Your task to perform on an android device: Open my contact list Image 0: 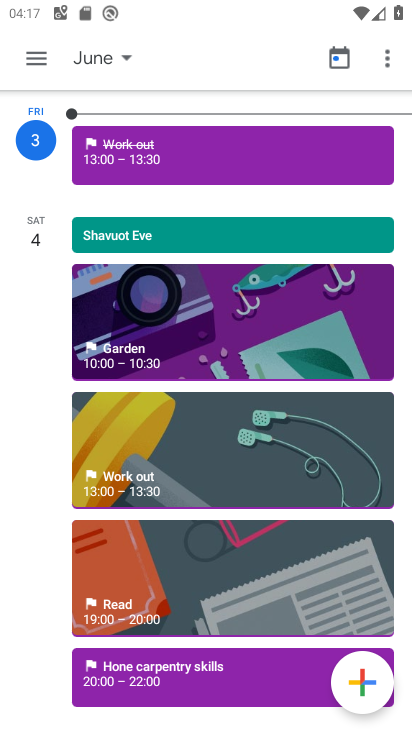
Step 0: press home button
Your task to perform on an android device: Open my contact list Image 1: 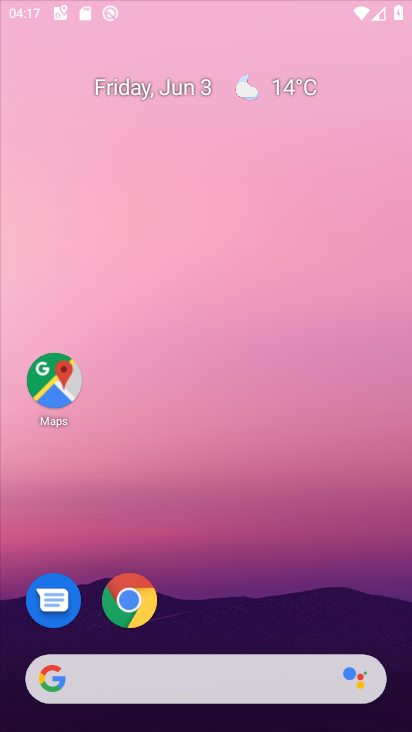
Step 1: press home button
Your task to perform on an android device: Open my contact list Image 2: 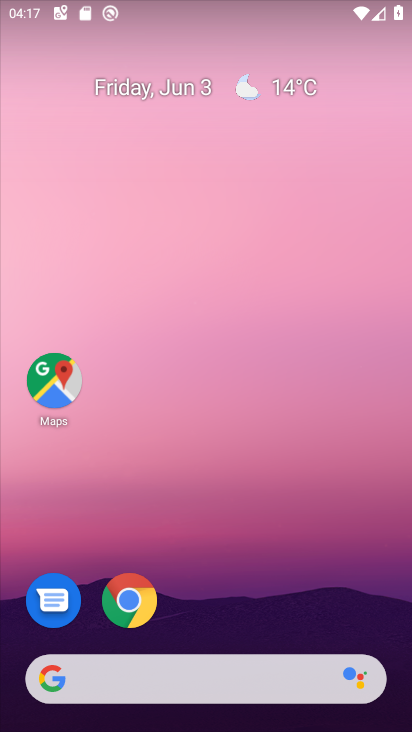
Step 2: drag from (286, 361) to (305, 89)
Your task to perform on an android device: Open my contact list Image 3: 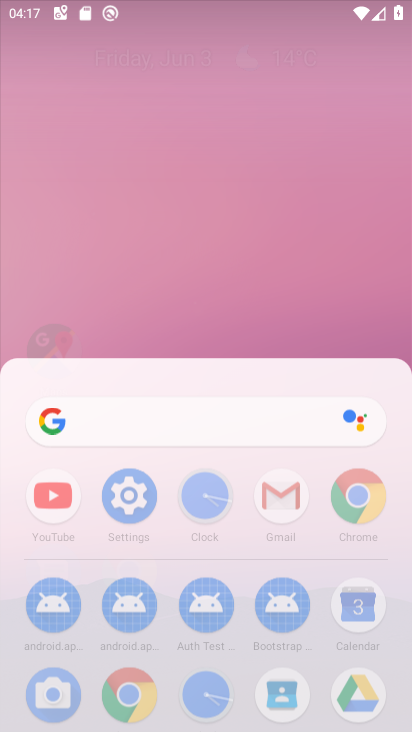
Step 3: press home button
Your task to perform on an android device: Open my contact list Image 4: 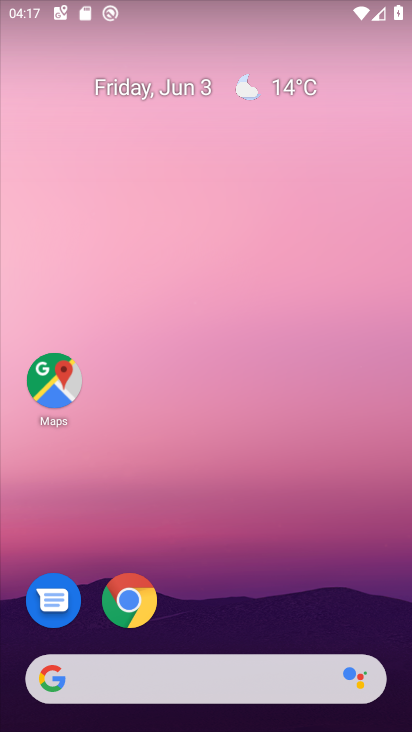
Step 4: drag from (254, 527) to (235, 79)
Your task to perform on an android device: Open my contact list Image 5: 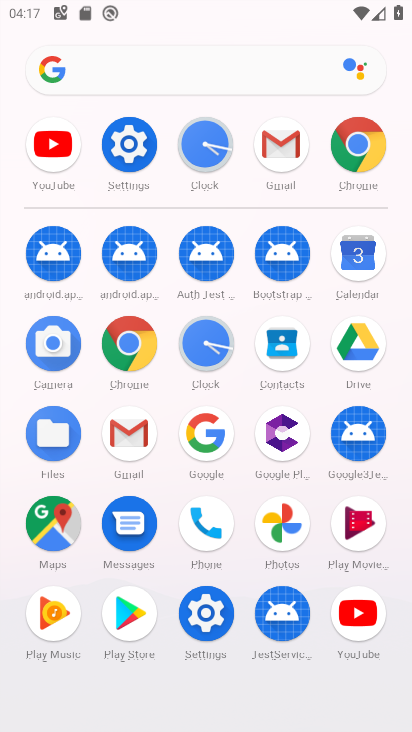
Step 5: click (279, 354)
Your task to perform on an android device: Open my contact list Image 6: 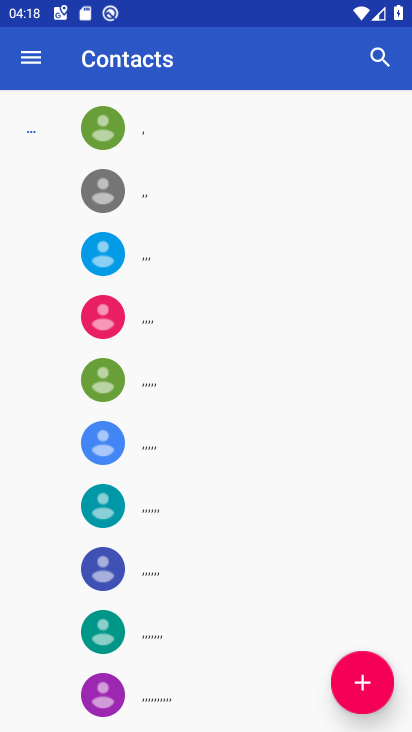
Step 6: task complete